Your task to perform on an android device: check data usage Image 0: 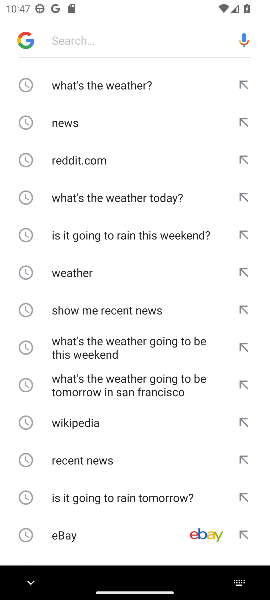
Step 0: press home button
Your task to perform on an android device: check data usage Image 1: 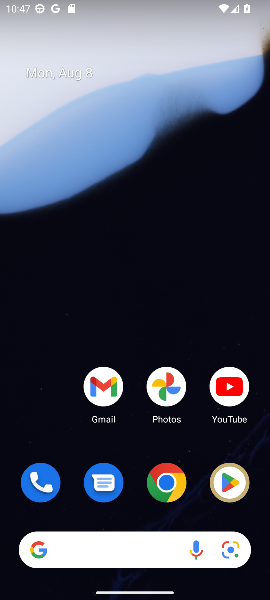
Step 1: drag from (120, 450) to (266, 299)
Your task to perform on an android device: check data usage Image 2: 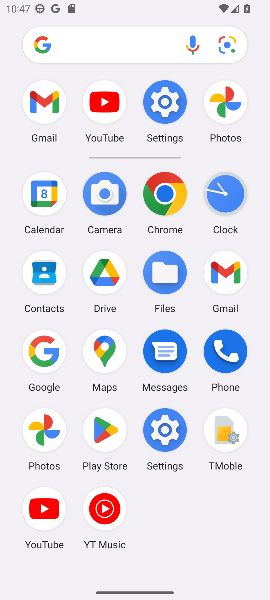
Step 2: click (163, 427)
Your task to perform on an android device: check data usage Image 3: 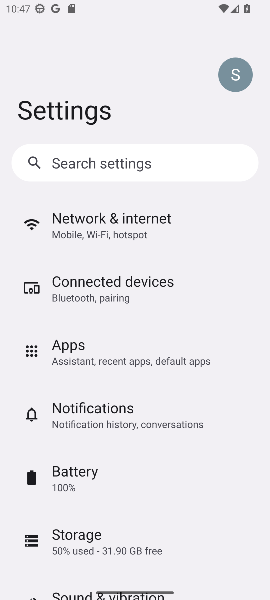
Step 3: click (104, 234)
Your task to perform on an android device: check data usage Image 4: 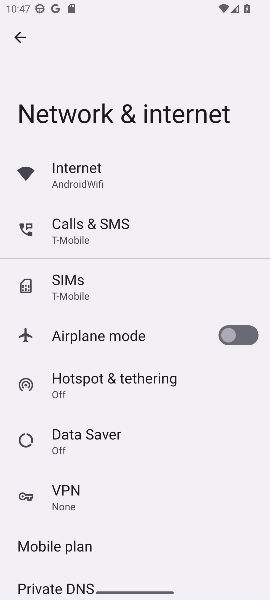
Step 4: click (76, 166)
Your task to perform on an android device: check data usage Image 5: 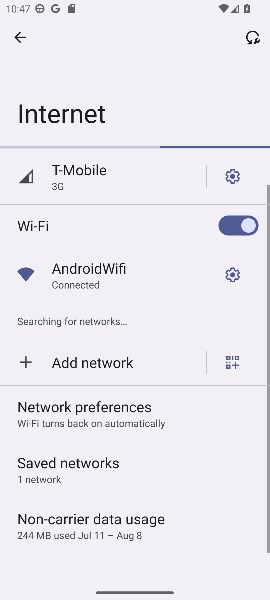
Step 5: click (79, 521)
Your task to perform on an android device: check data usage Image 6: 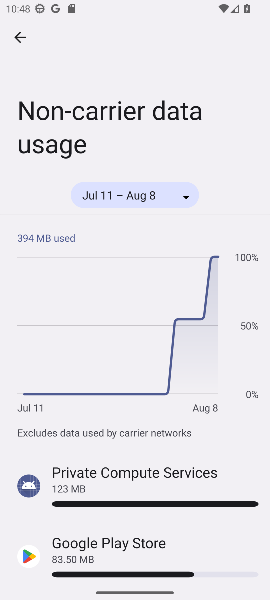
Step 6: task complete